Your task to perform on an android device: Go to Yahoo.com Image 0: 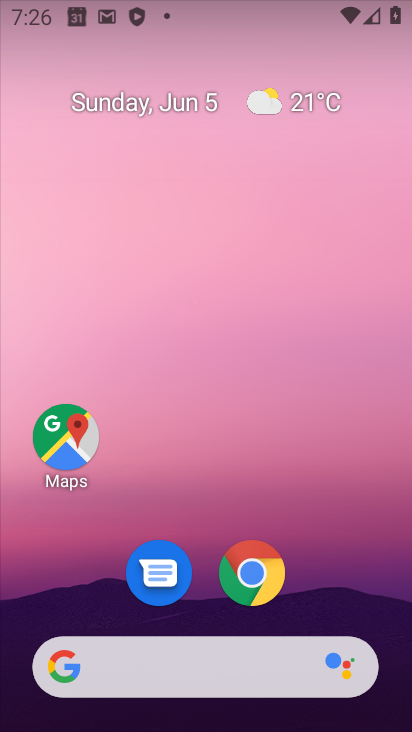
Step 0: click (256, 573)
Your task to perform on an android device: Go to Yahoo.com Image 1: 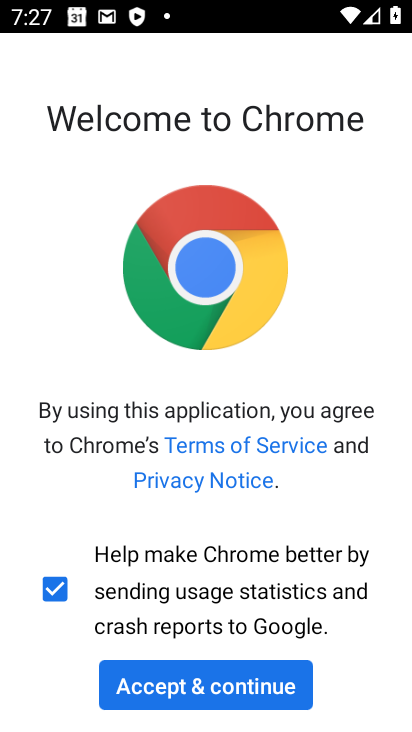
Step 1: click (180, 683)
Your task to perform on an android device: Go to Yahoo.com Image 2: 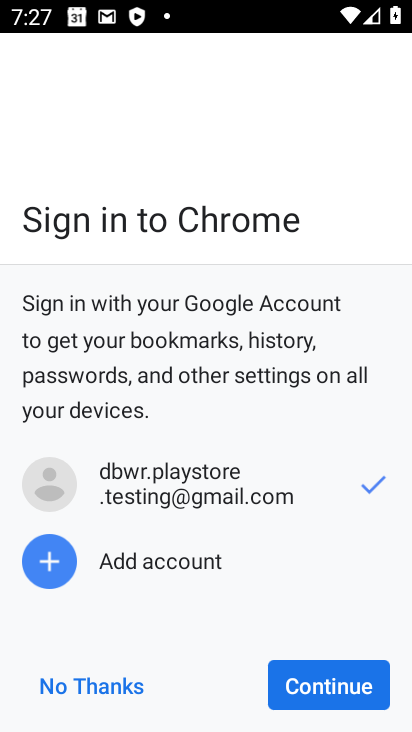
Step 2: click (325, 672)
Your task to perform on an android device: Go to Yahoo.com Image 3: 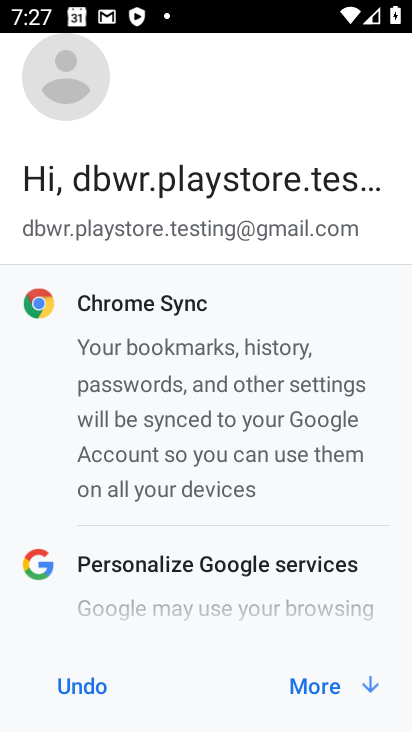
Step 3: click (326, 675)
Your task to perform on an android device: Go to Yahoo.com Image 4: 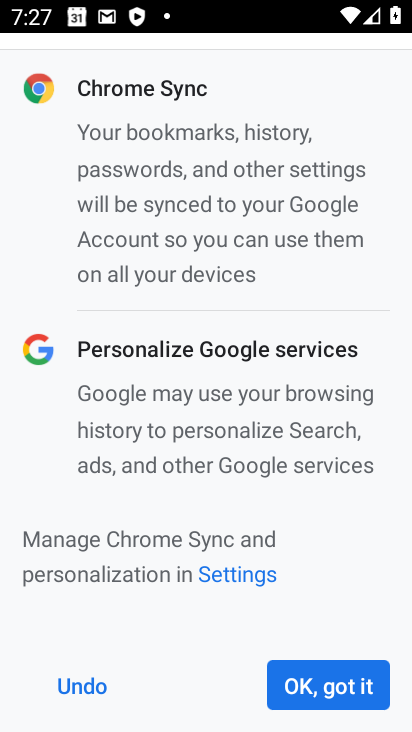
Step 4: click (325, 678)
Your task to perform on an android device: Go to Yahoo.com Image 5: 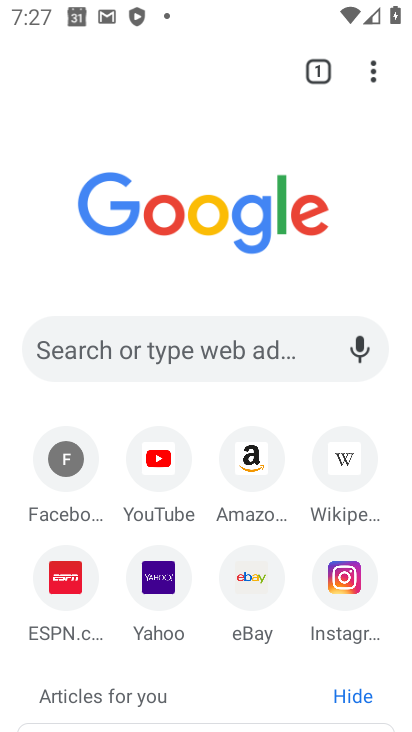
Step 5: click (171, 575)
Your task to perform on an android device: Go to Yahoo.com Image 6: 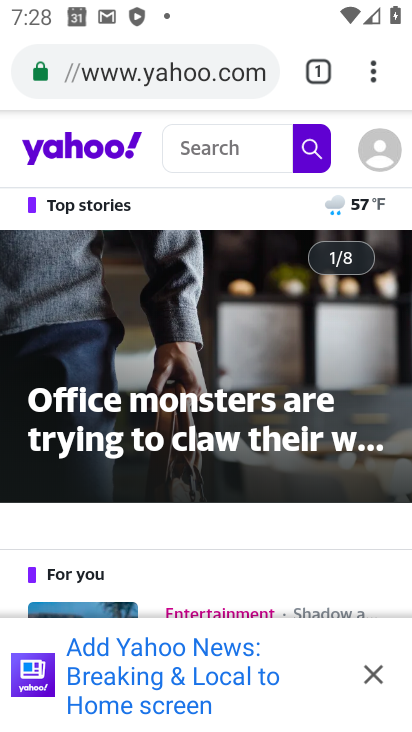
Step 6: task complete